Your task to perform on an android device: Search for sushi restaurants on Maps Image 0: 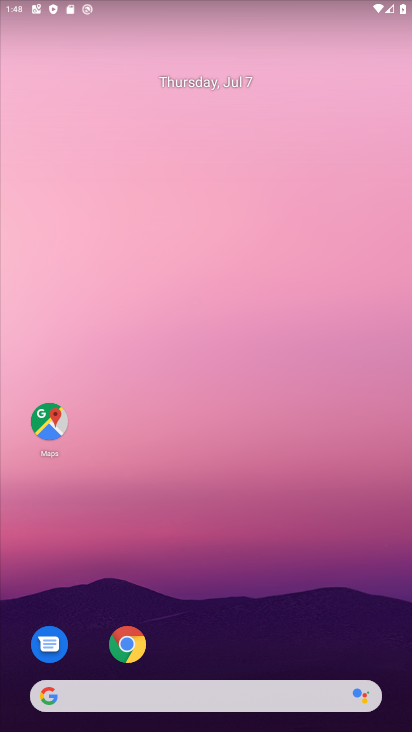
Step 0: click (51, 433)
Your task to perform on an android device: Search for sushi restaurants on Maps Image 1: 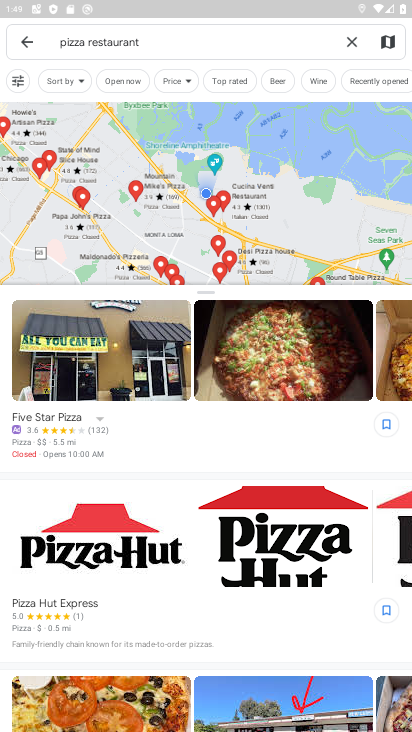
Step 1: click (358, 42)
Your task to perform on an android device: Search for sushi restaurants on Maps Image 2: 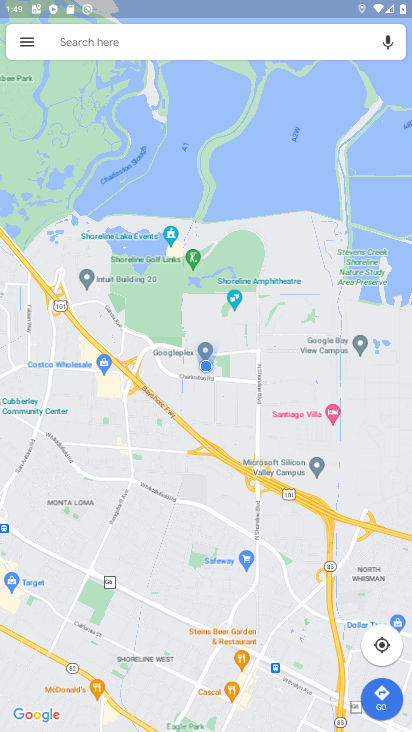
Step 2: click (234, 46)
Your task to perform on an android device: Search for sushi restaurants on Maps Image 3: 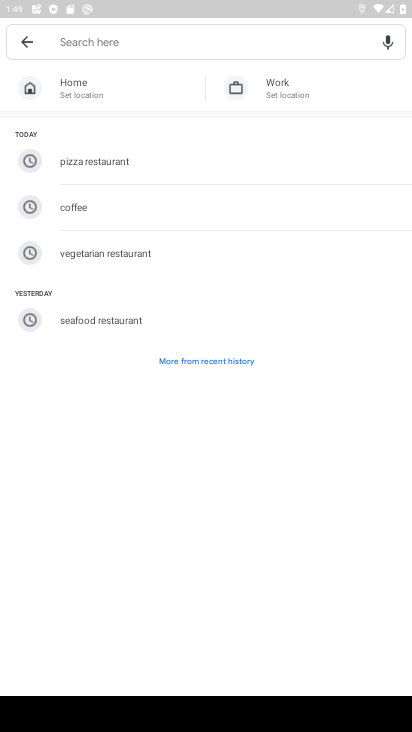
Step 3: type "sushi restaurants"
Your task to perform on an android device: Search for sushi restaurants on Maps Image 4: 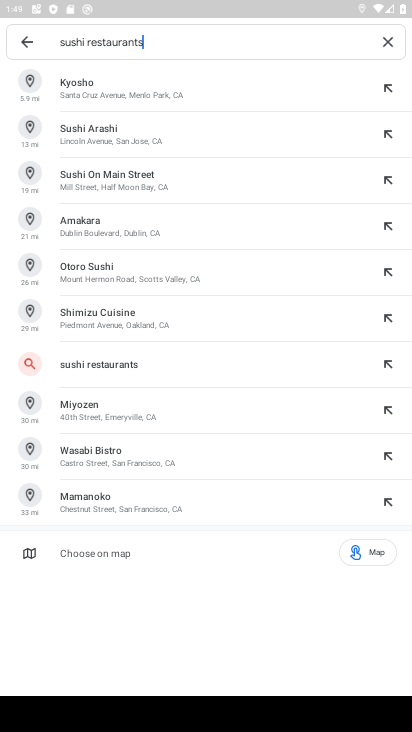
Step 4: click (124, 371)
Your task to perform on an android device: Search for sushi restaurants on Maps Image 5: 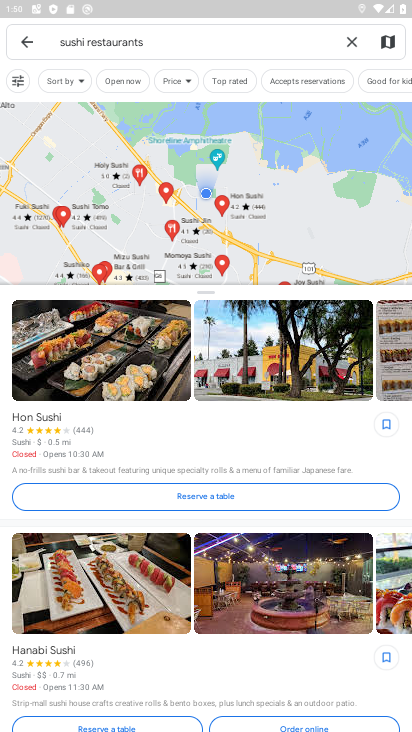
Step 5: task complete